Your task to perform on an android device: See recent photos Image 0: 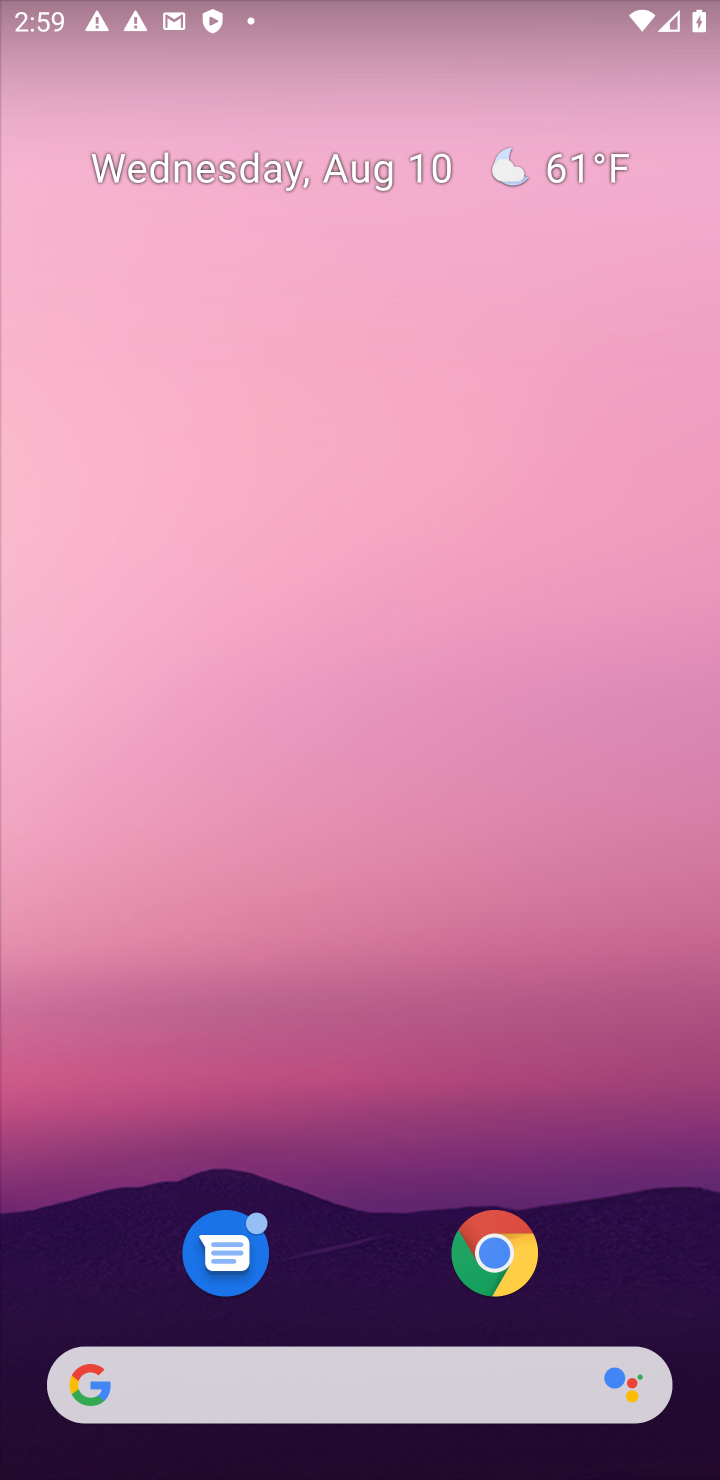
Step 0: drag from (362, 1033) to (291, 417)
Your task to perform on an android device: See recent photos Image 1: 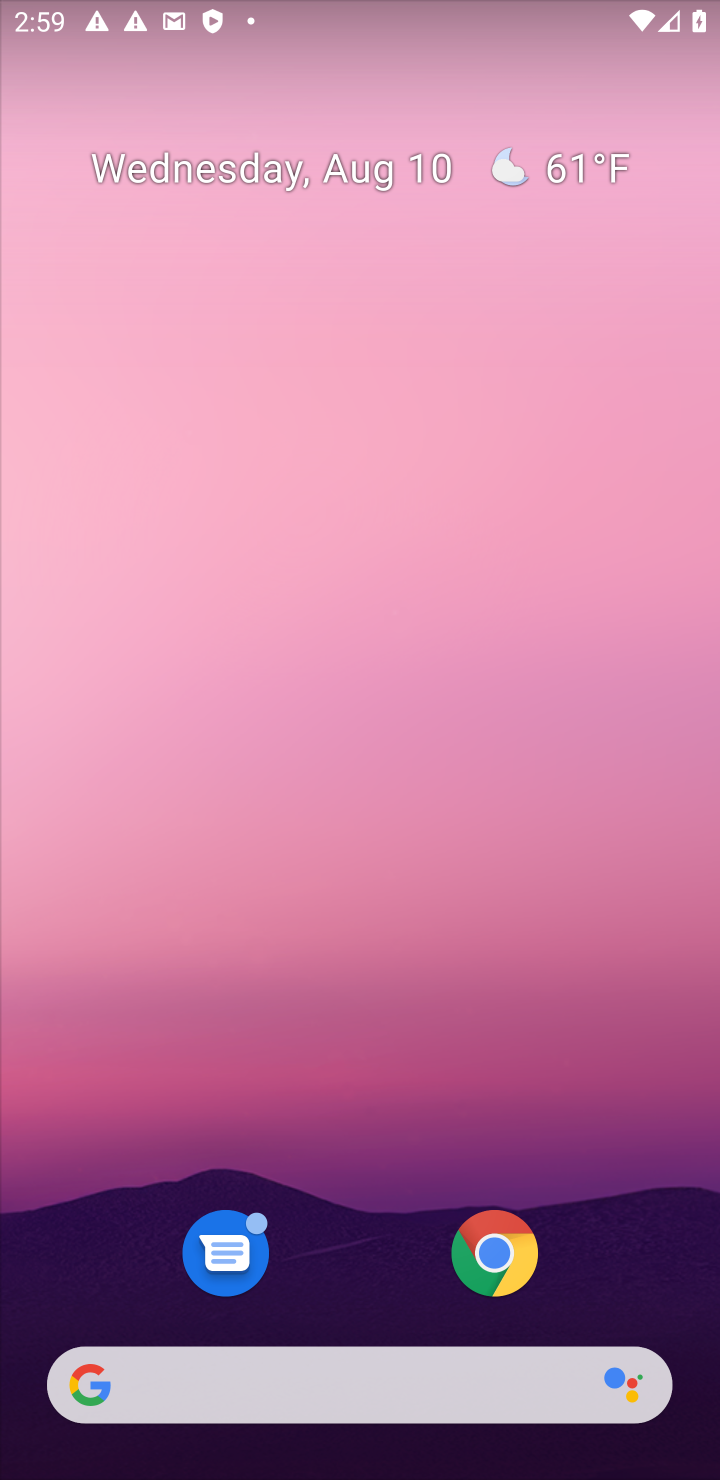
Step 1: drag from (447, 574) to (573, 16)
Your task to perform on an android device: See recent photos Image 2: 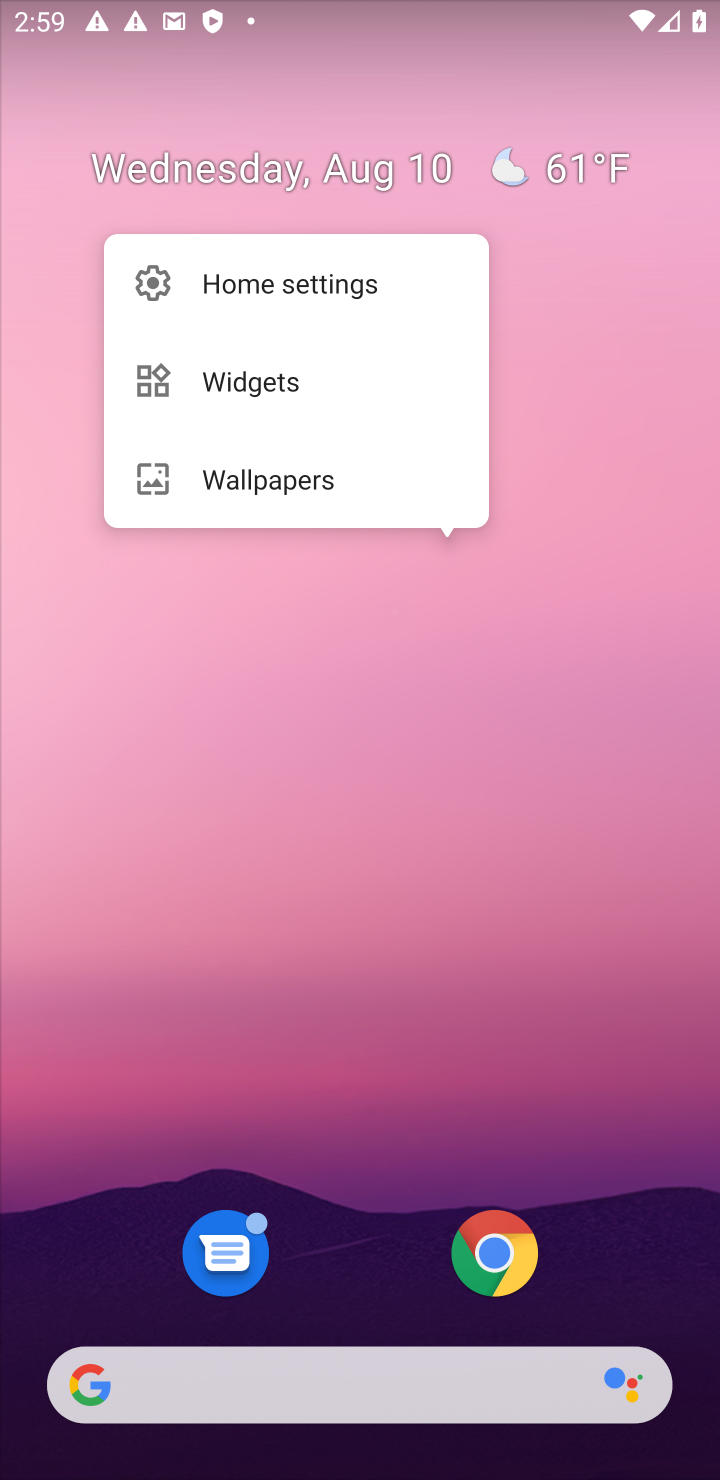
Step 2: click (316, 927)
Your task to perform on an android device: See recent photos Image 3: 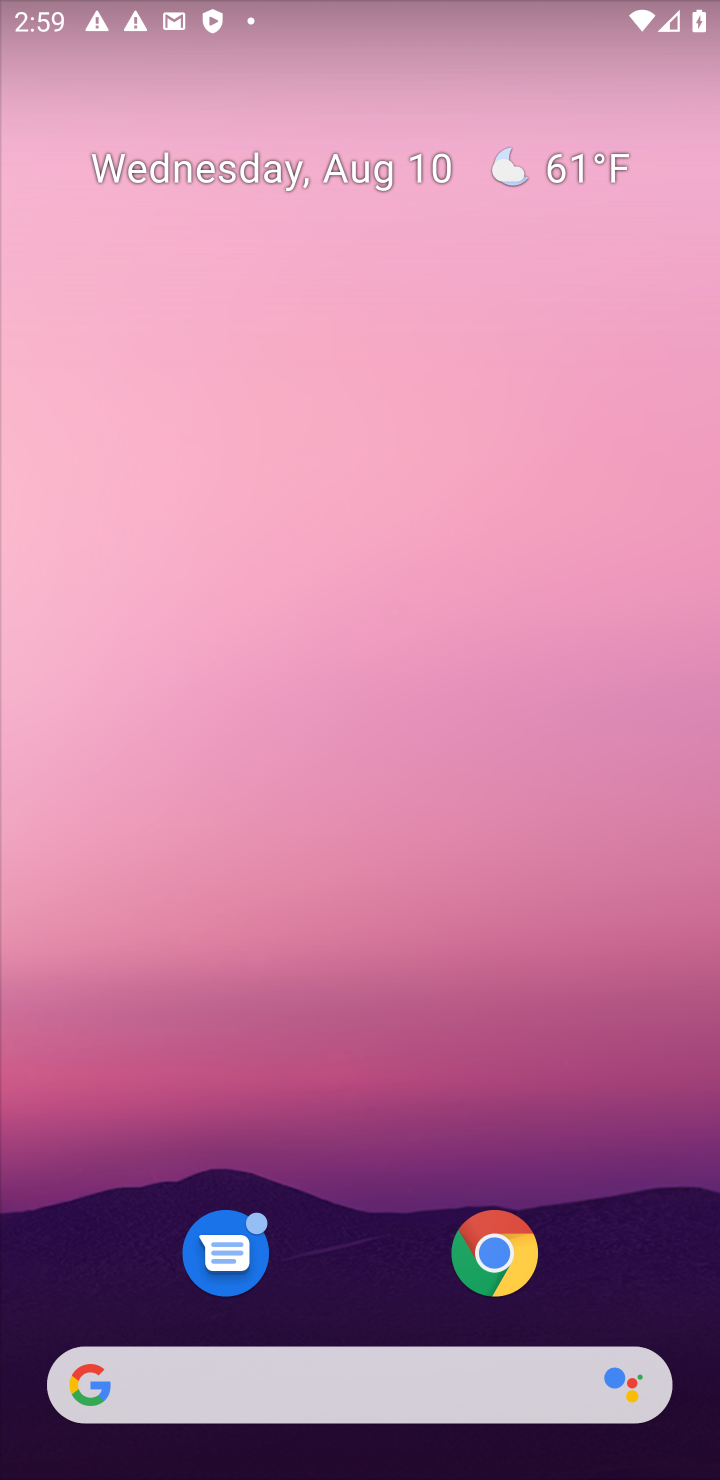
Step 3: task complete